Your task to perform on an android device: delete location history Image 0: 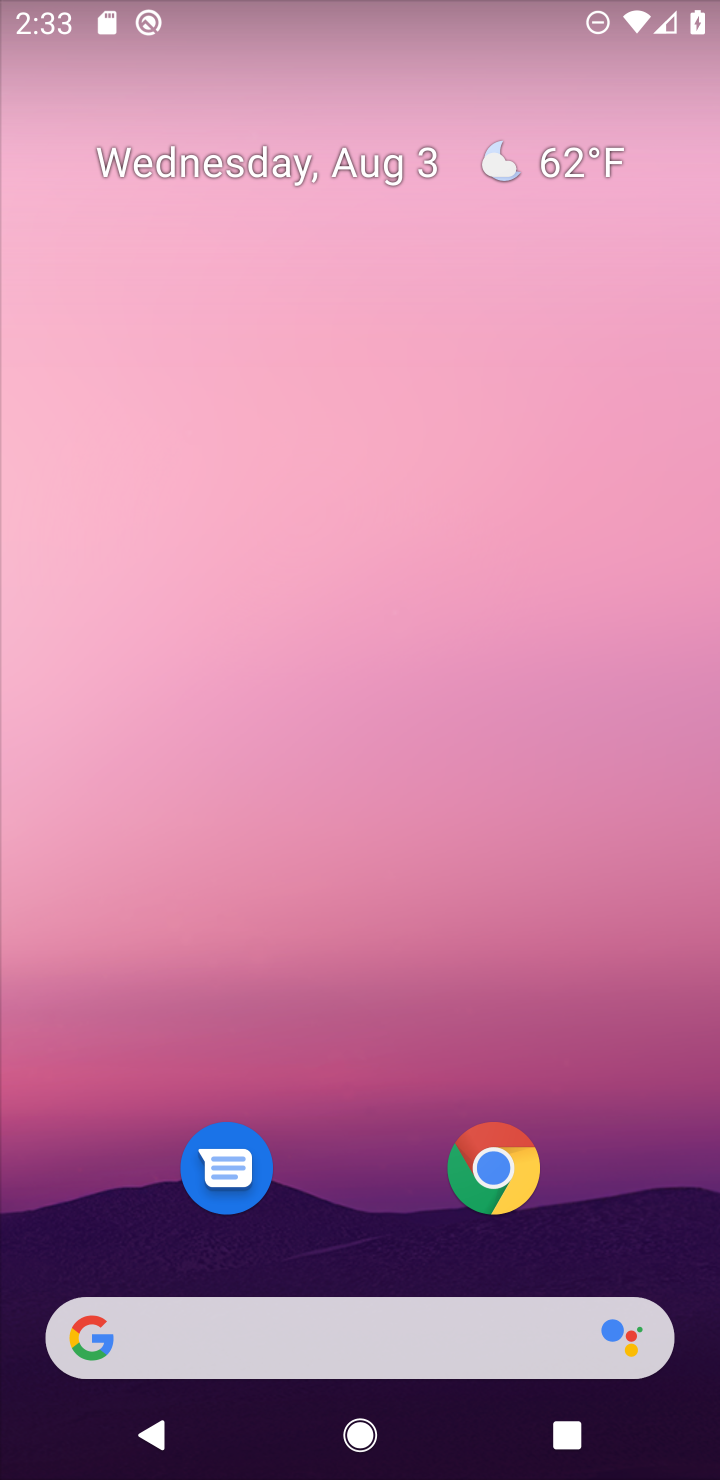
Step 0: drag from (658, 1111) to (573, 195)
Your task to perform on an android device: delete location history Image 1: 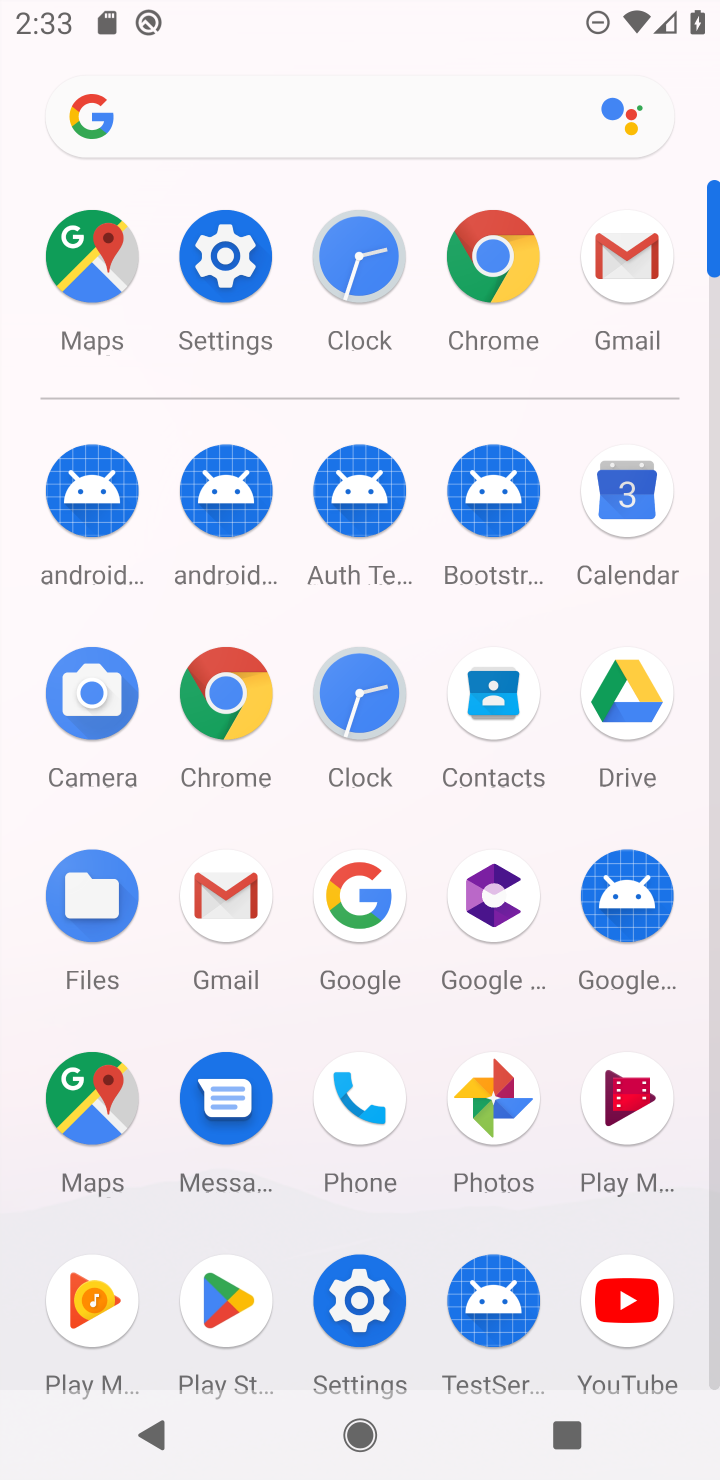
Step 1: click (88, 1103)
Your task to perform on an android device: delete location history Image 2: 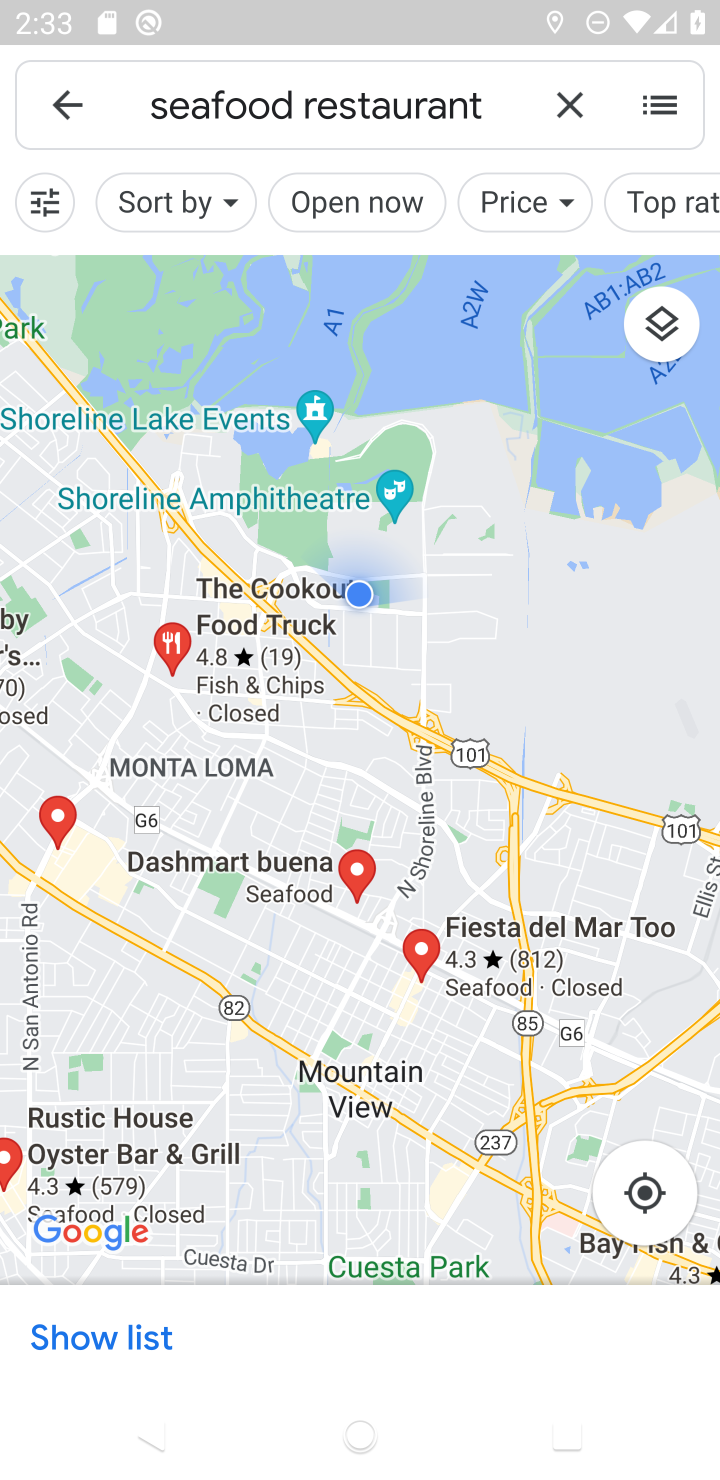
Step 2: click (573, 107)
Your task to perform on an android device: delete location history Image 3: 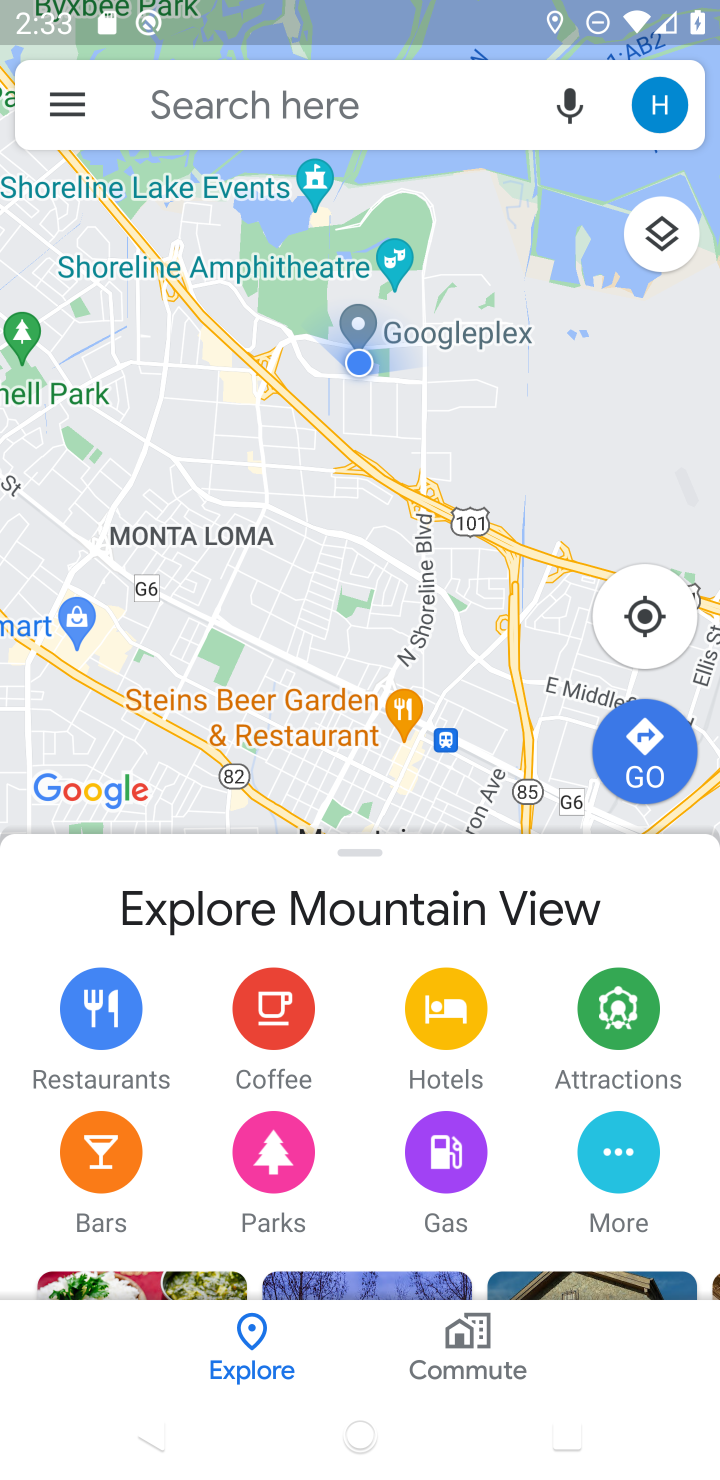
Step 3: click (60, 111)
Your task to perform on an android device: delete location history Image 4: 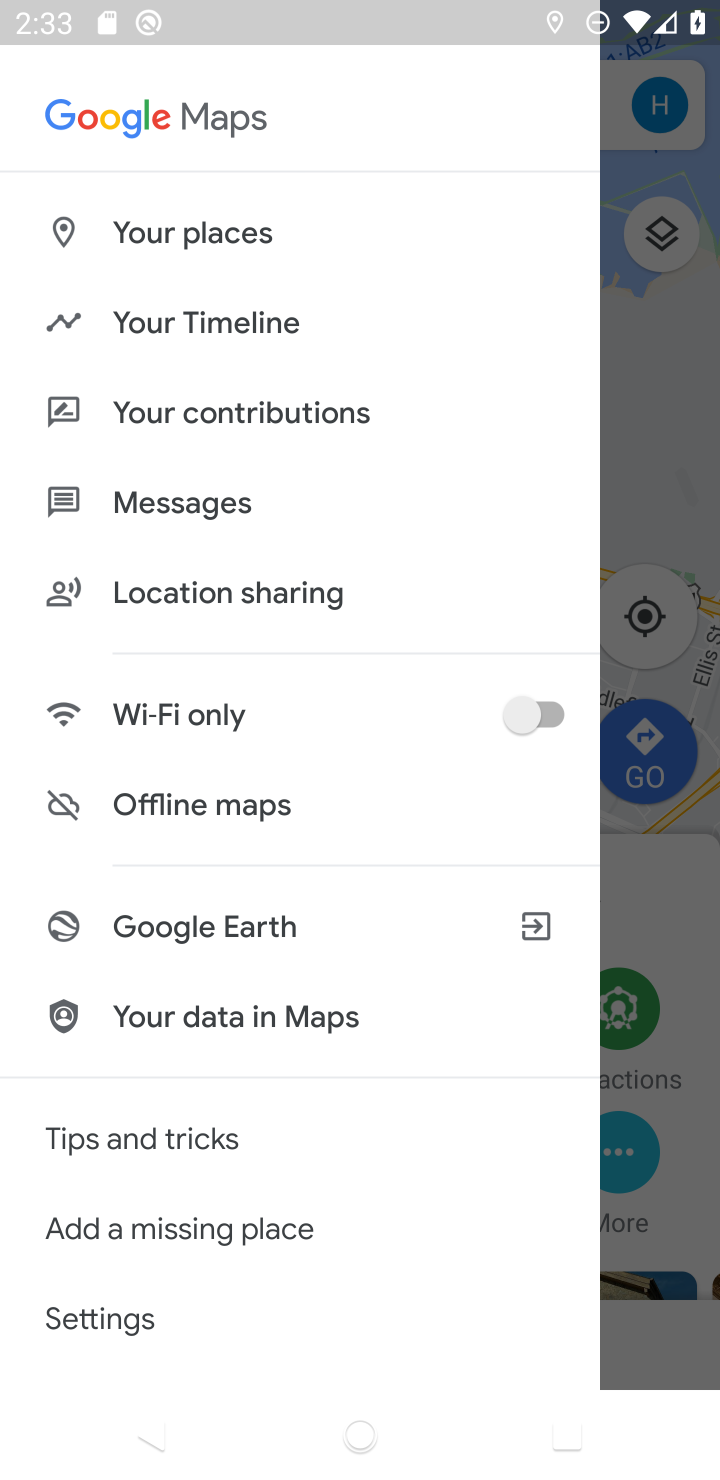
Step 4: click (116, 1303)
Your task to perform on an android device: delete location history Image 5: 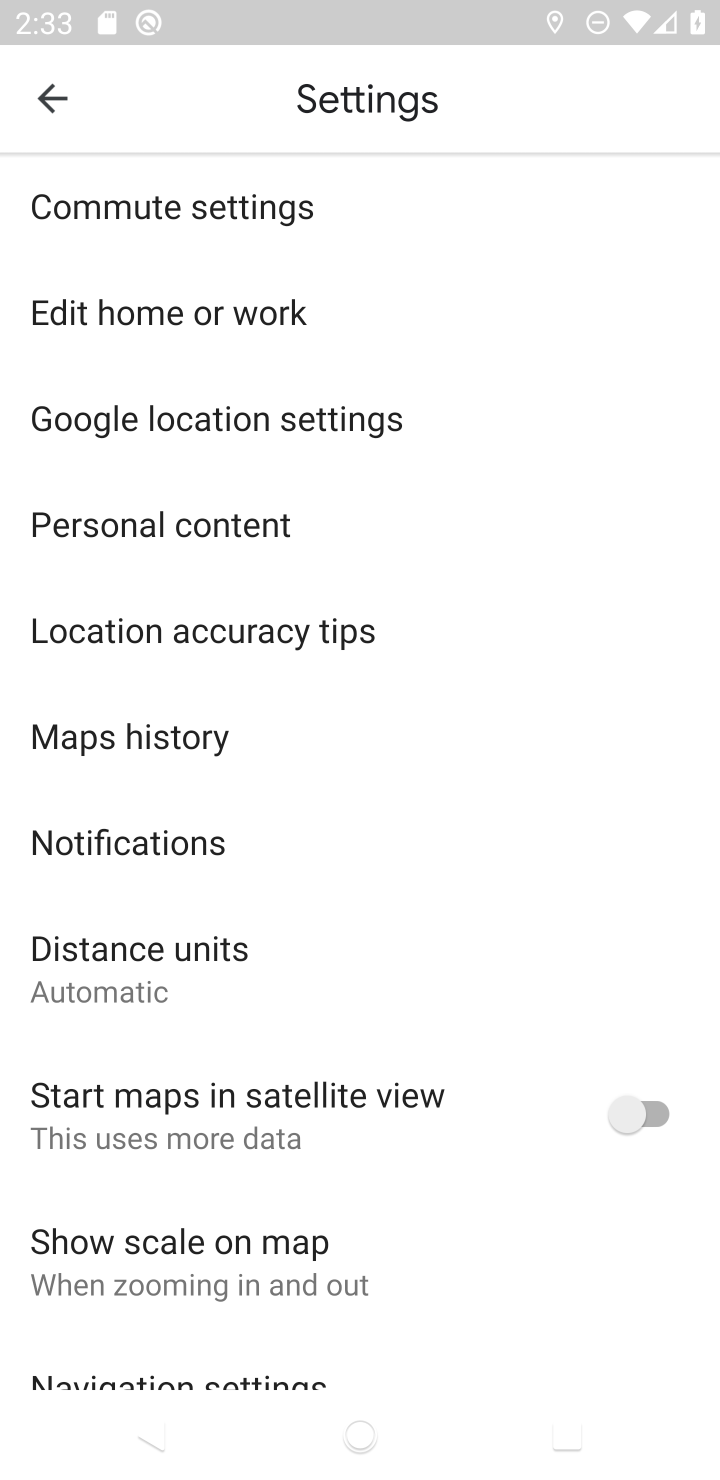
Step 5: click (187, 511)
Your task to perform on an android device: delete location history Image 6: 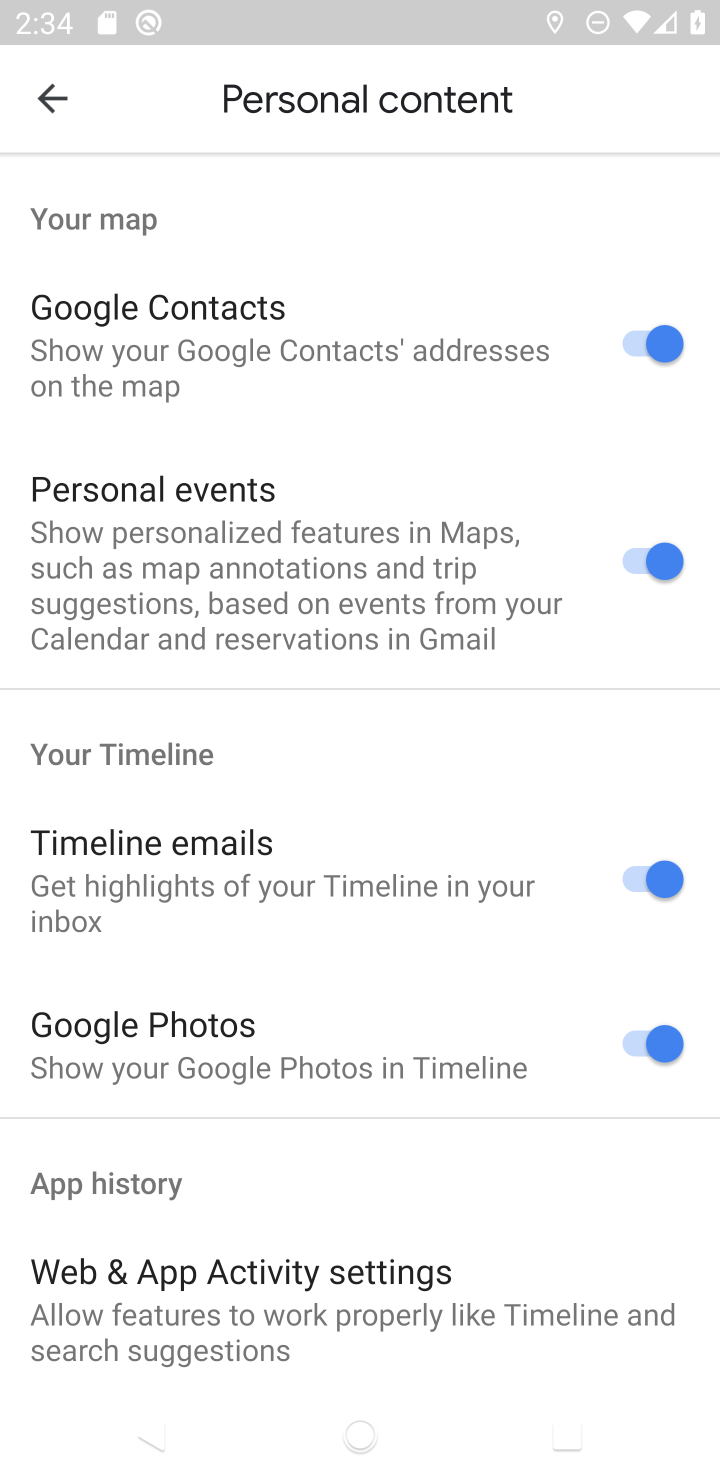
Step 6: drag from (443, 1168) to (377, 434)
Your task to perform on an android device: delete location history Image 7: 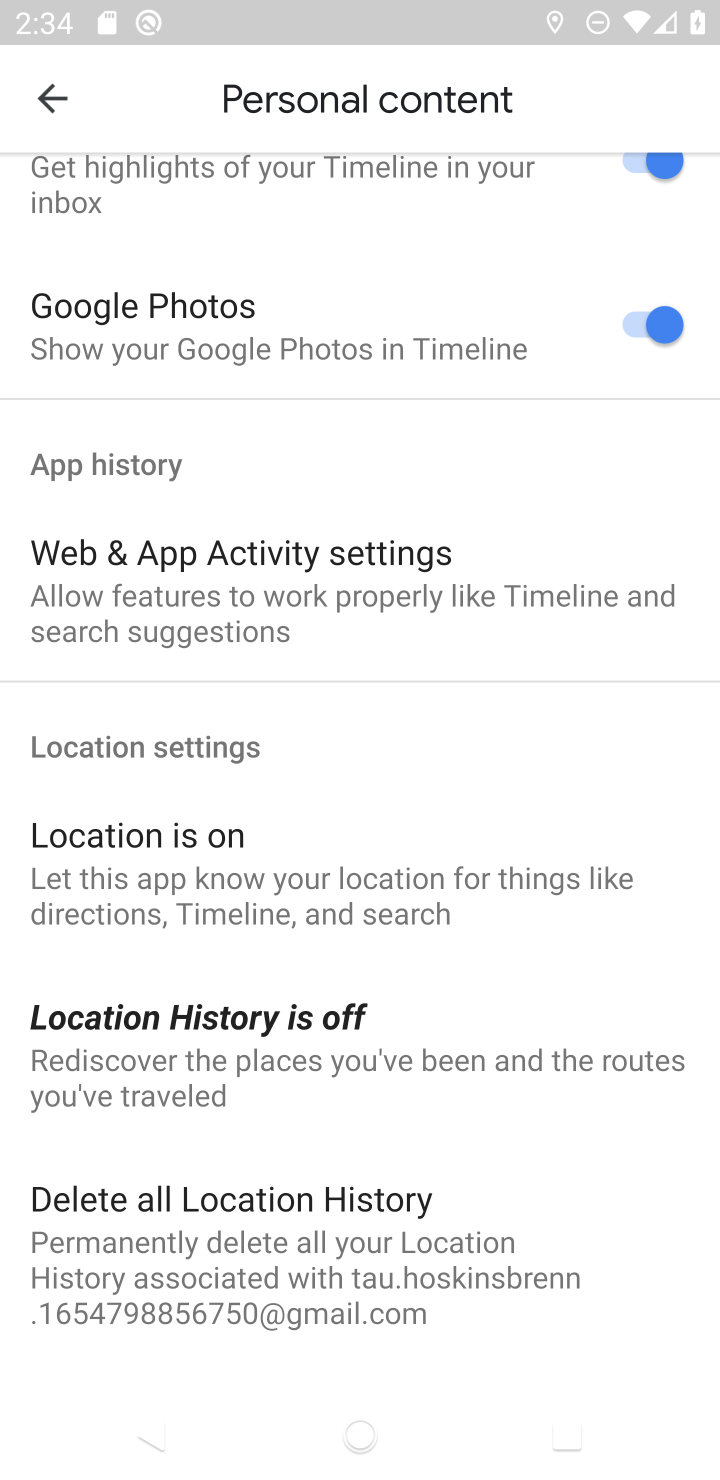
Step 7: click (211, 1217)
Your task to perform on an android device: delete location history Image 8: 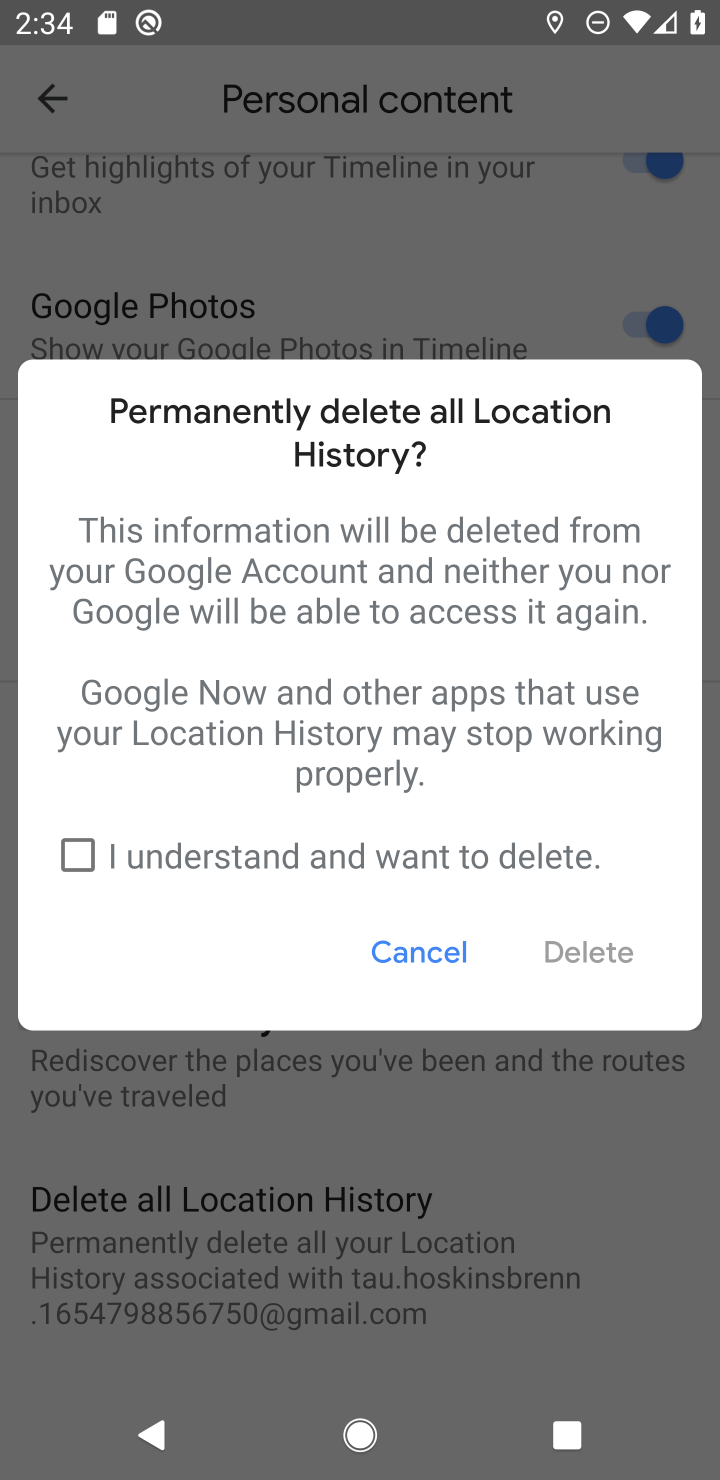
Step 8: click (72, 858)
Your task to perform on an android device: delete location history Image 9: 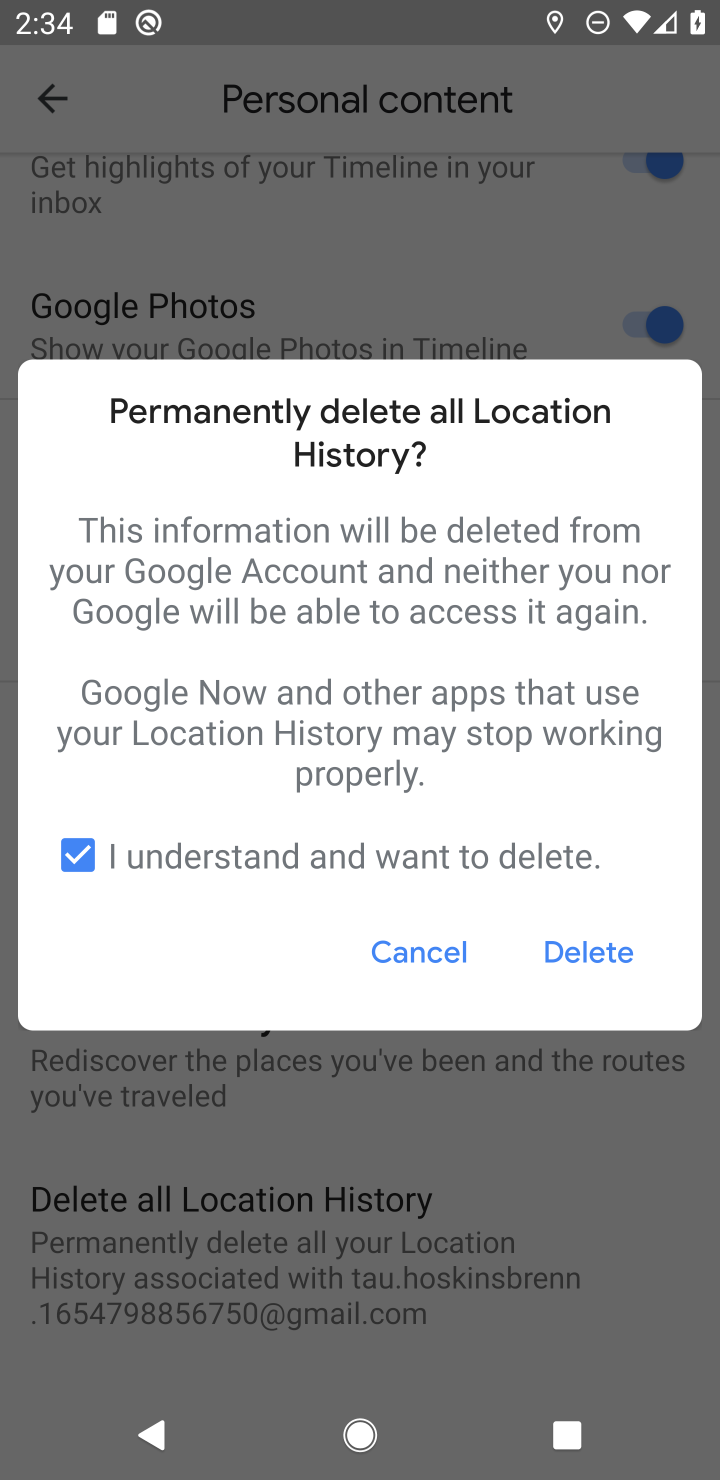
Step 9: click (588, 955)
Your task to perform on an android device: delete location history Image 10: 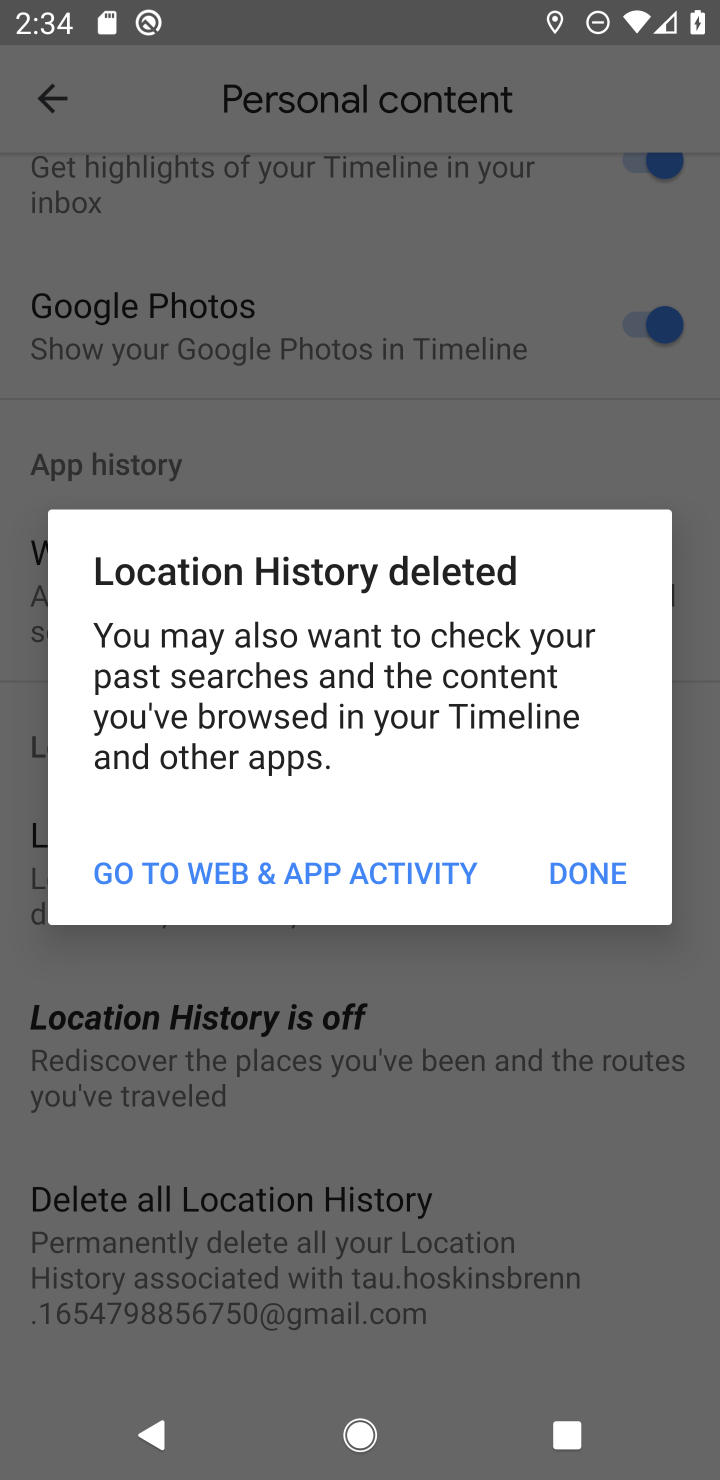
Step 10: click (587, 878)
Your task to perform on an android device: delete location history Image 11: 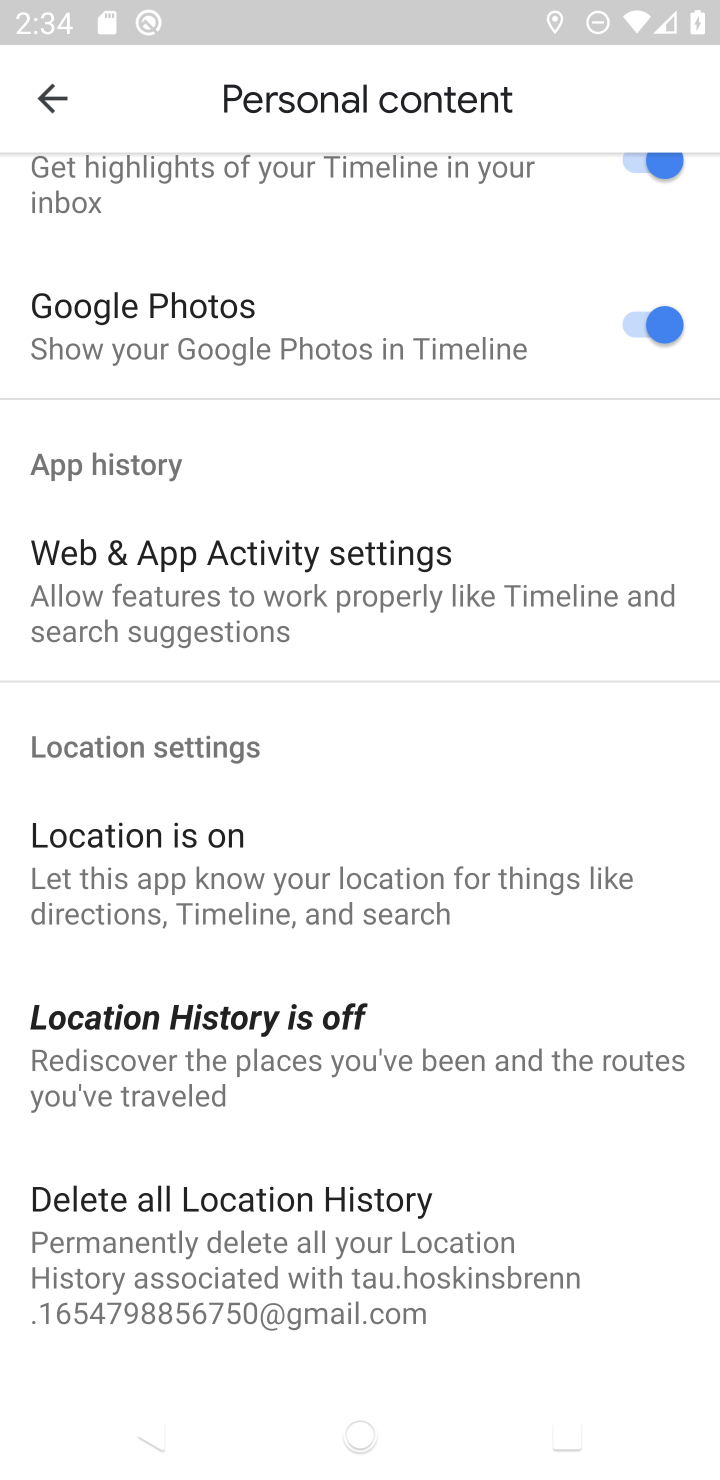
Step 11: task complete